Your task to perform on an android device: toggle location history Image 0: 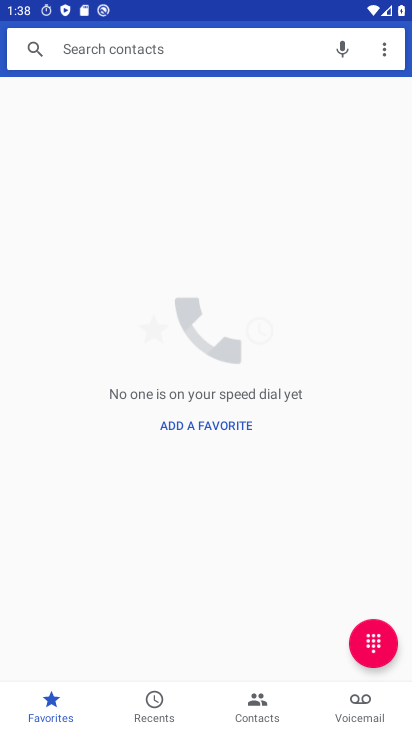
Step 0: press home button
Your task to perform on an android device: toggle location history Image 1: 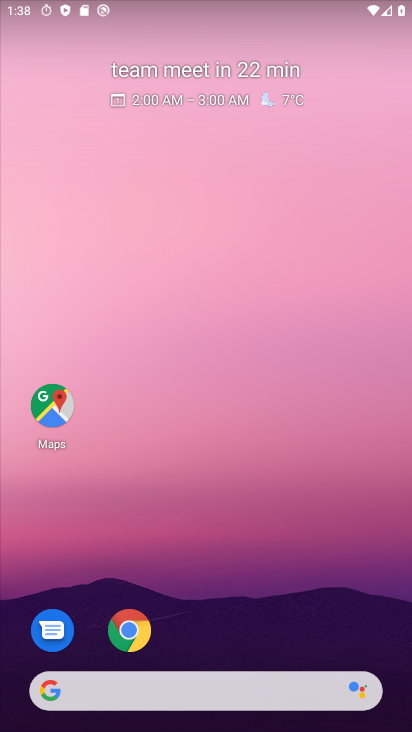
Step 1: drag from (207, 702) to (204, 119)
Your task to perform on an android device: toggle location history Image 2: 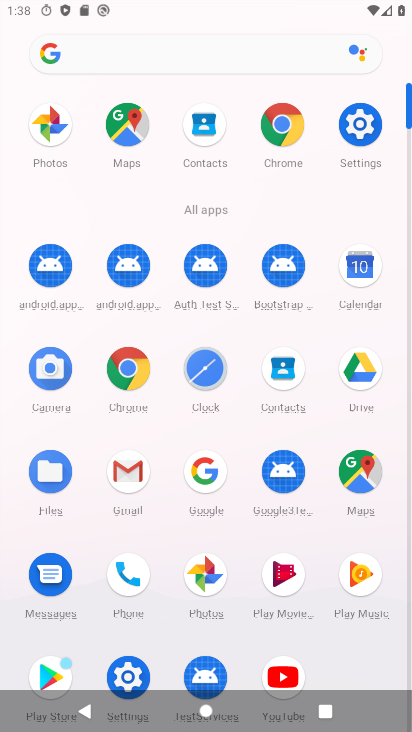
Step 2: click (374, 123)
Your task to perform on an android device: toggle location history Image 3: 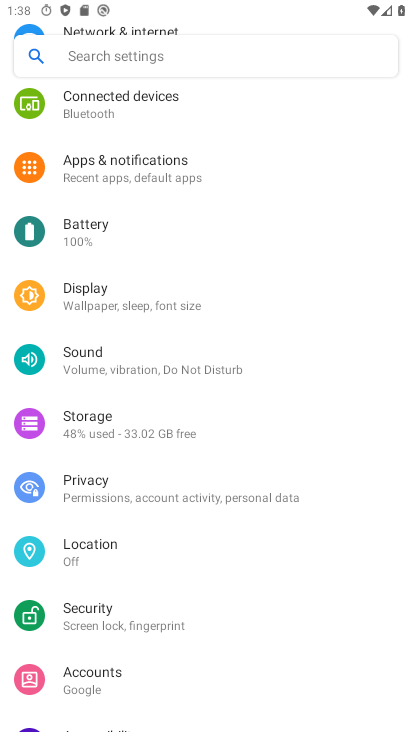
Step 3: click (134, 557)
Your task to perform on an android device: toggle location history Image 4: 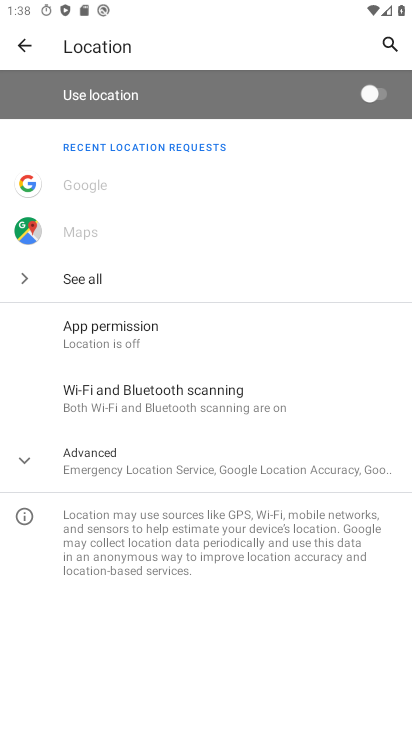
Step 4: click (210, 459)
Your task to perform on an android device: toggle location history Image 5: 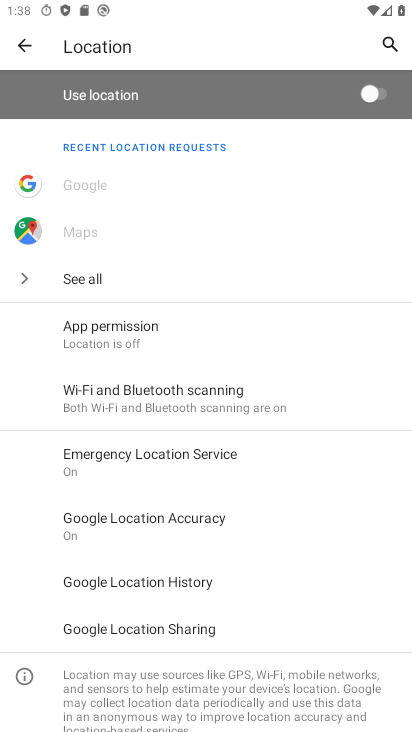
Step 5: click (217, 583)
Your task to perform on an android device: toggle location history Image 6: 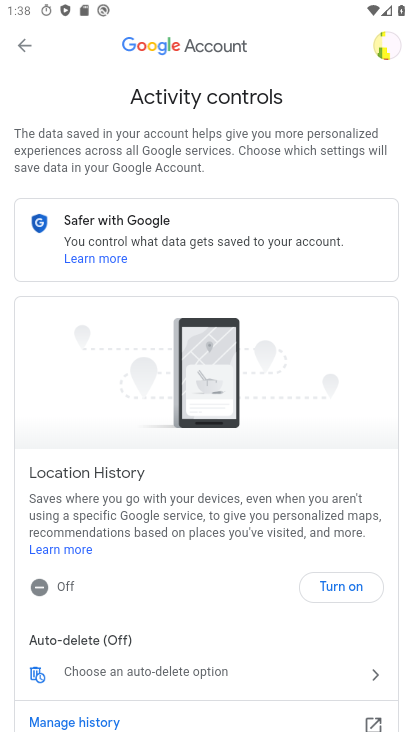
Step 6: click (348, 600)
Your task to perform on an android device: toggle location history Image 7: 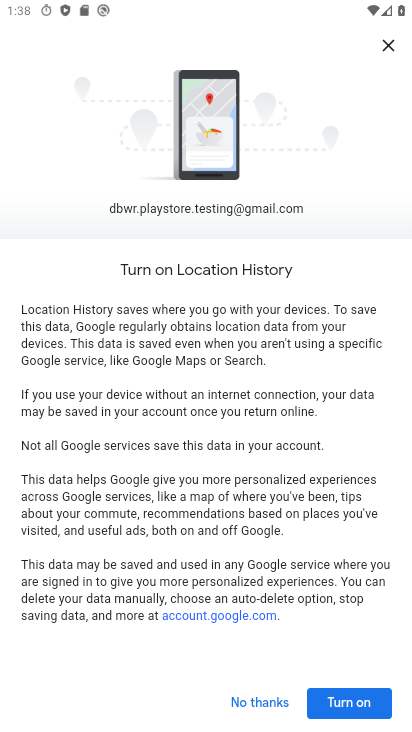
Step 7: drag from (328, 611) to (282, 163)
Your task to perform on an android device: toggle location history Image 8: 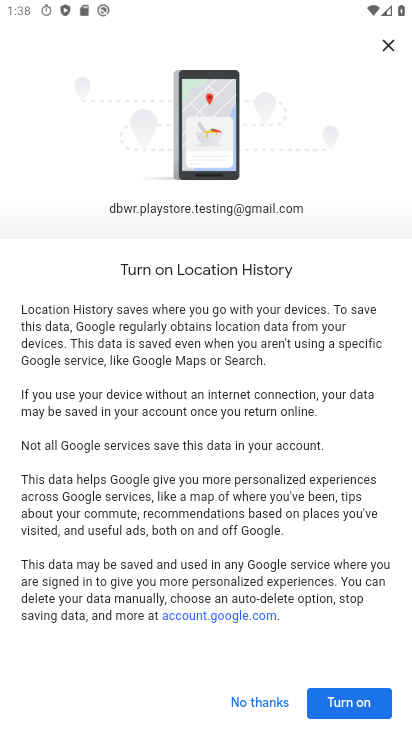
Step 8: click (359, 700)
Your task to perform on an android device: toggle location history Image 9: 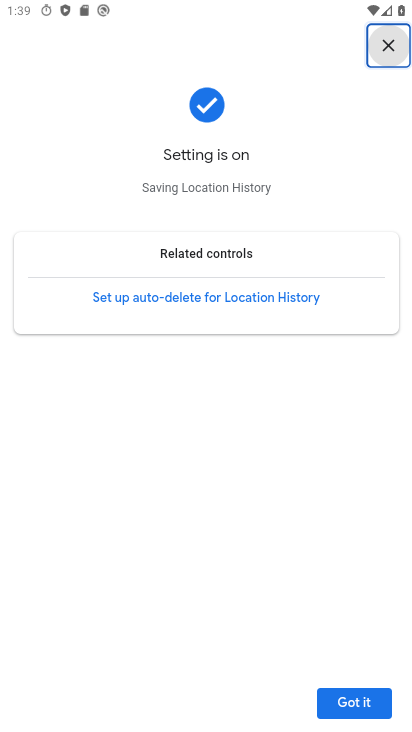
Step 9: click (353, 709)
Your task to perform on an android device: toggle location history Image 10: 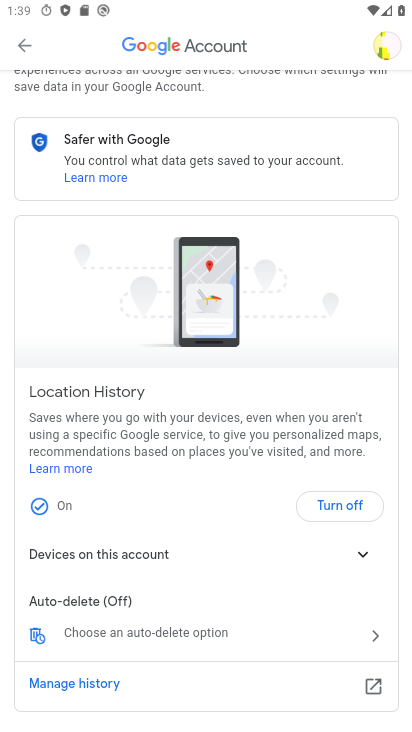
Step 10: task complete